Your task to perform on an android device: See recent photos Image 0: 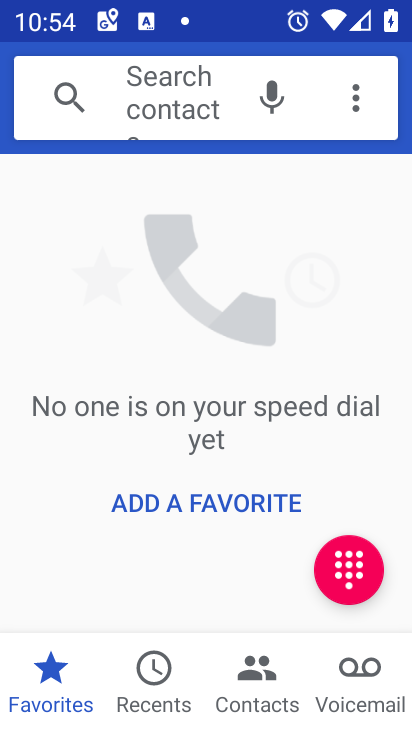
Step 0: press home button
Your task to perform on an android device: See recent photos Image 1: 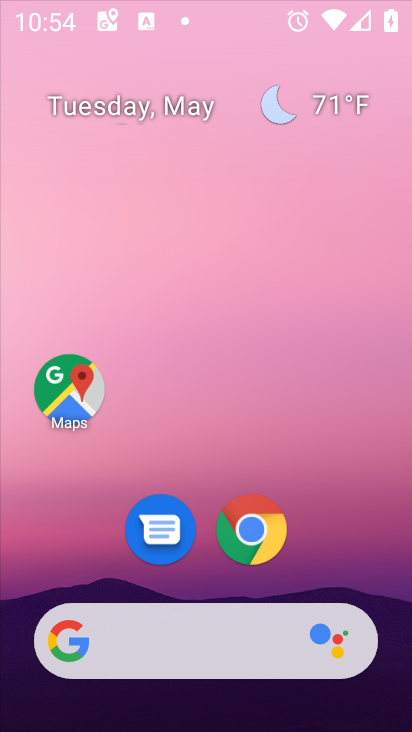
Step 1: drag from (219, 677) to (268, 260)
Your task to perform on an android device: See recent photos Image 2: 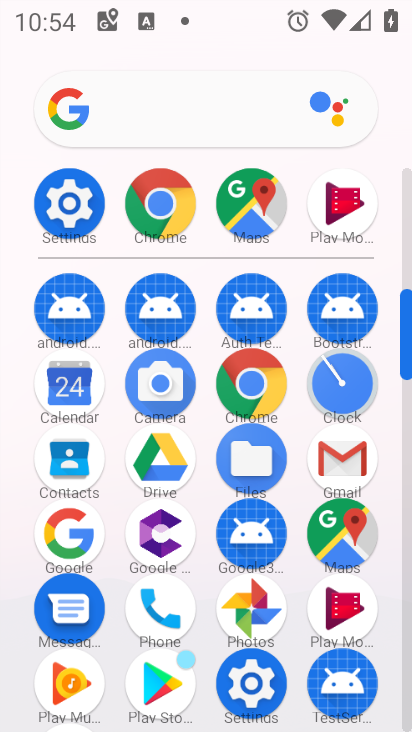
Step 2: click (249, 602)
Your task to perform on an android device: See recent photos Image 3: 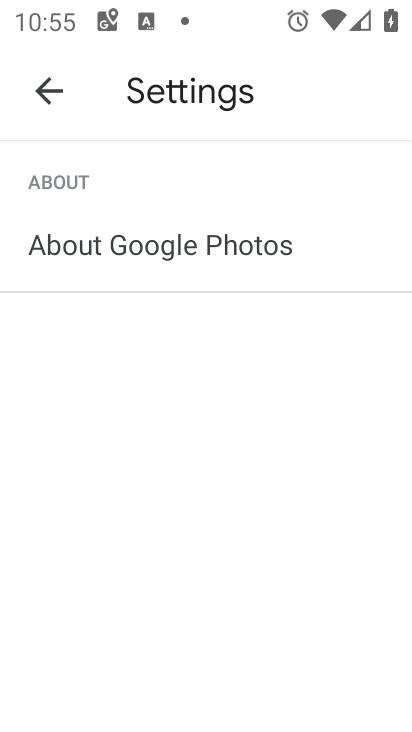
Step 3: click (53, 97)
Your task to perform on an android device: See recent photos Image 4: 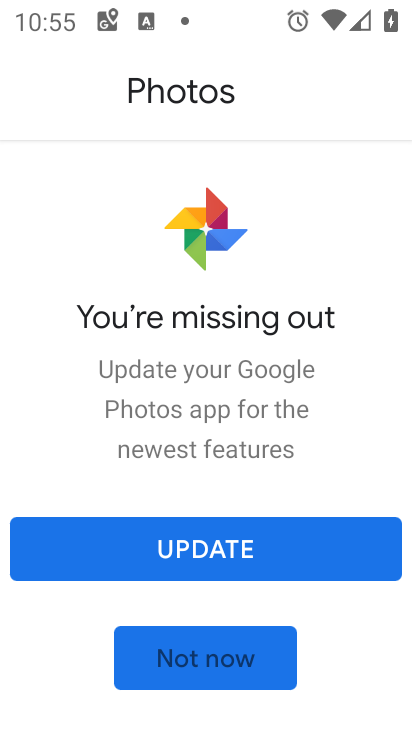
Step 4: click (255, 657)
Your task to perform on an android device: See recent photos Image 5: 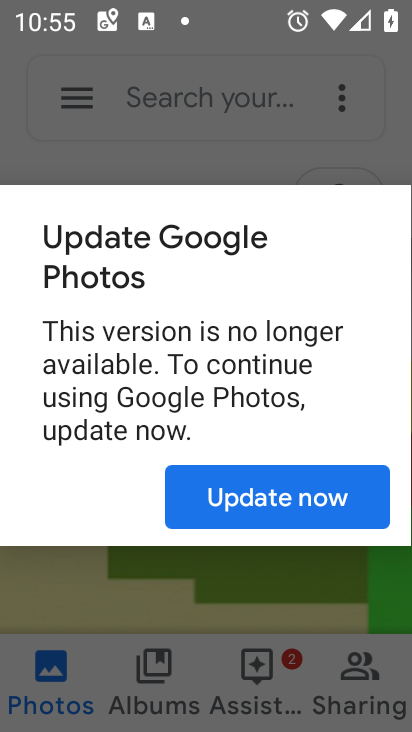
Step 5: task complete